Your task to perform on an android device: check google app version Image 0: 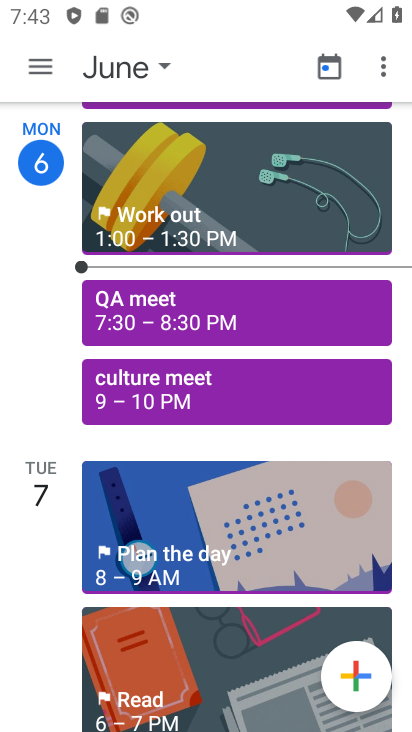
Step 0: press home button
Your task to perform on an android device: check google app version Image 1: 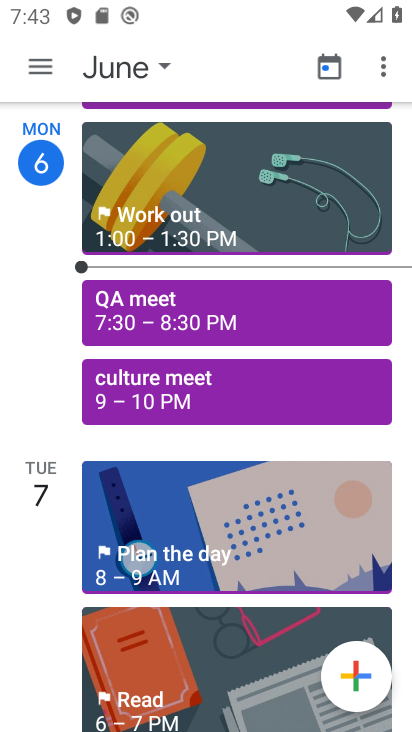
Step 1: press home button
Your task to perform on an android device: check google app version Image 2: 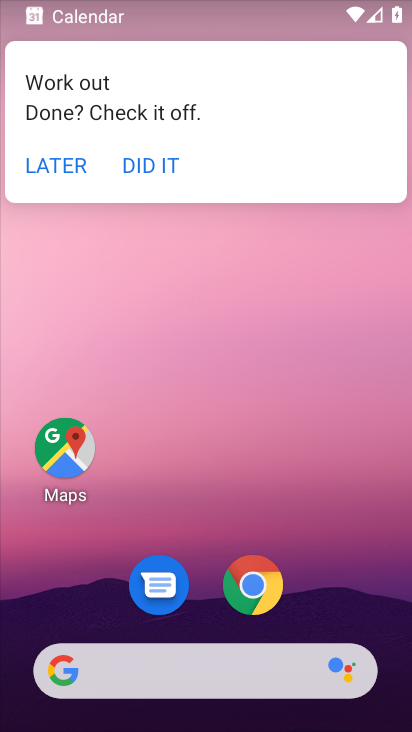
Step 2: click (229, 666)
Your task to perform on an android device: check google app version Image 3: 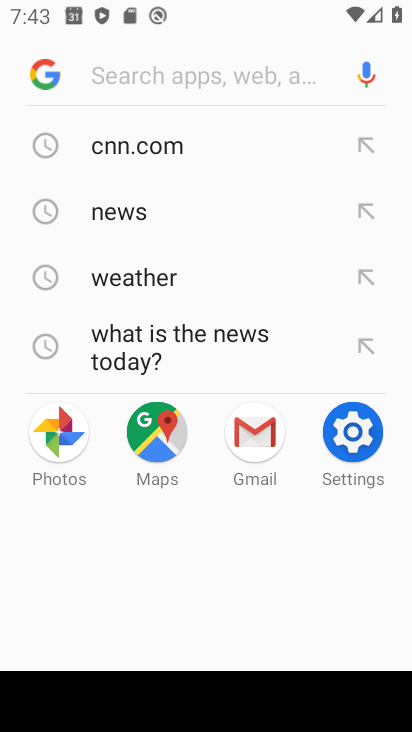
Step 3: click (42, 65)
Your task to perform on an android device: check google app version Image 4: 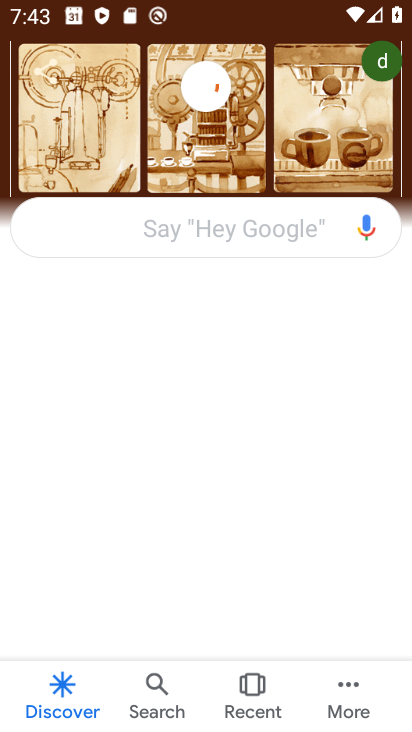
Step 4: click (343, 674)
Your task to perform on an android device: check google app version Image 5: 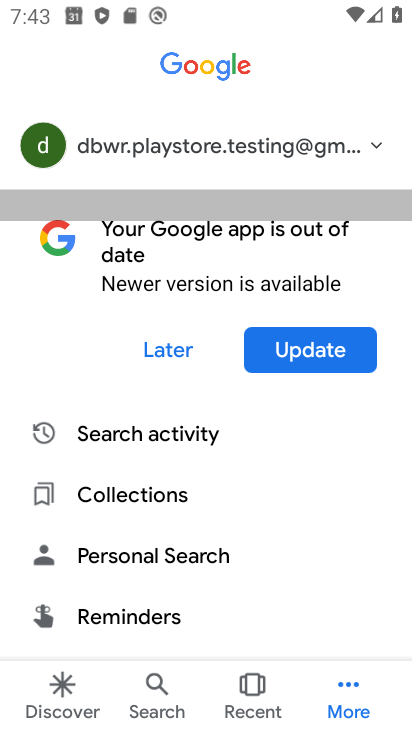
Step 5: drag from (273, 584) to (291, 280)
Your task to perform on an android device: check google app version Image 6: 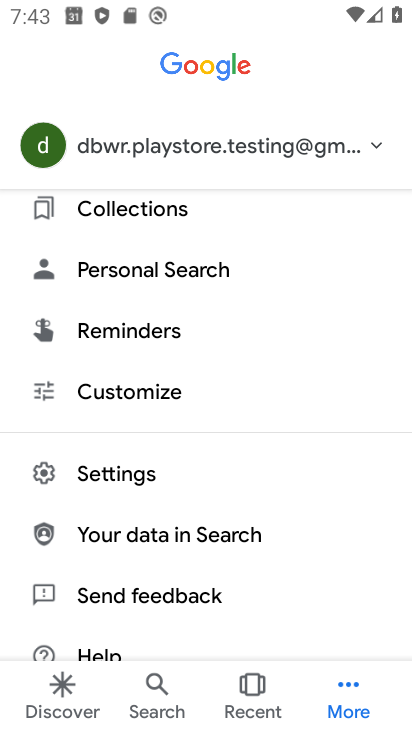
Step 6: click (120, 472)
Your task to perform on an android device: check google app version Image 7: 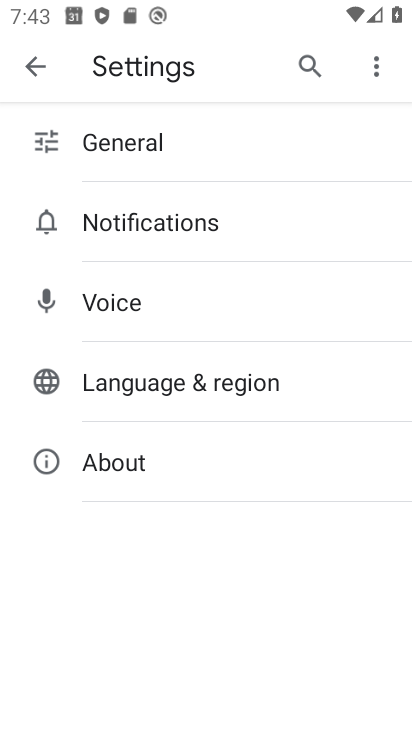
Step 7: click (122, 464)
Your task to perform on an android device: check google app version Image 8: 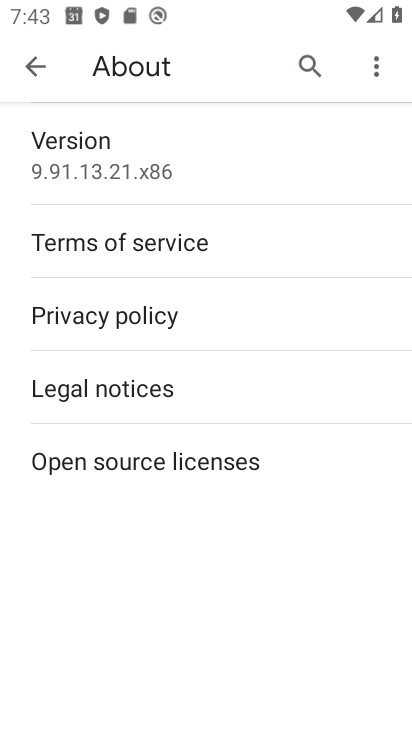
Step 8: task complete